Your task to perform on an android device: Open Google Chrome and click the shortcut for Amazon.com Image 0: 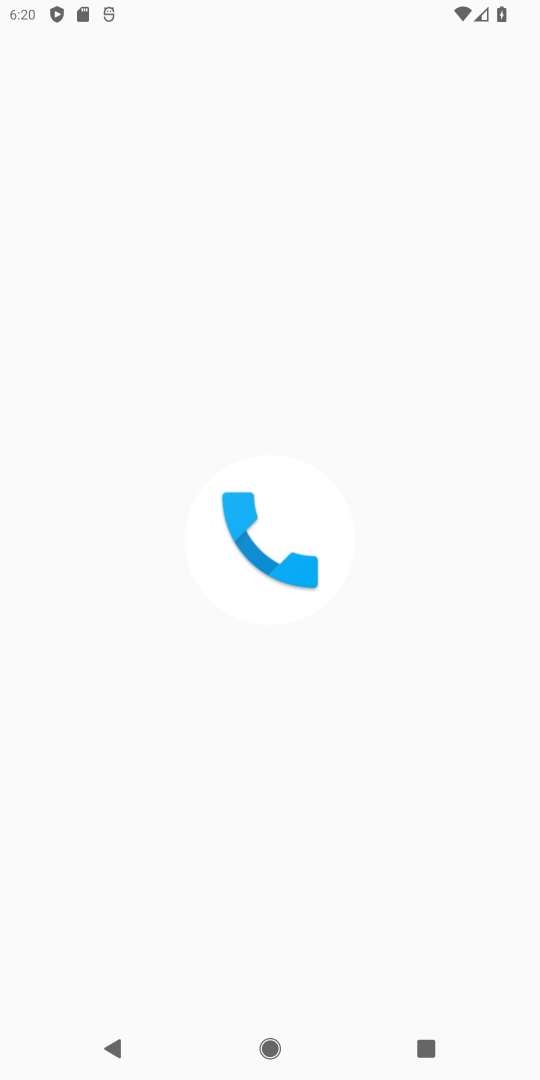
Step 0: press home button
Your task to perform on an android device: Open Google Chrome and click the shortcut for Amazon.com Image 1: 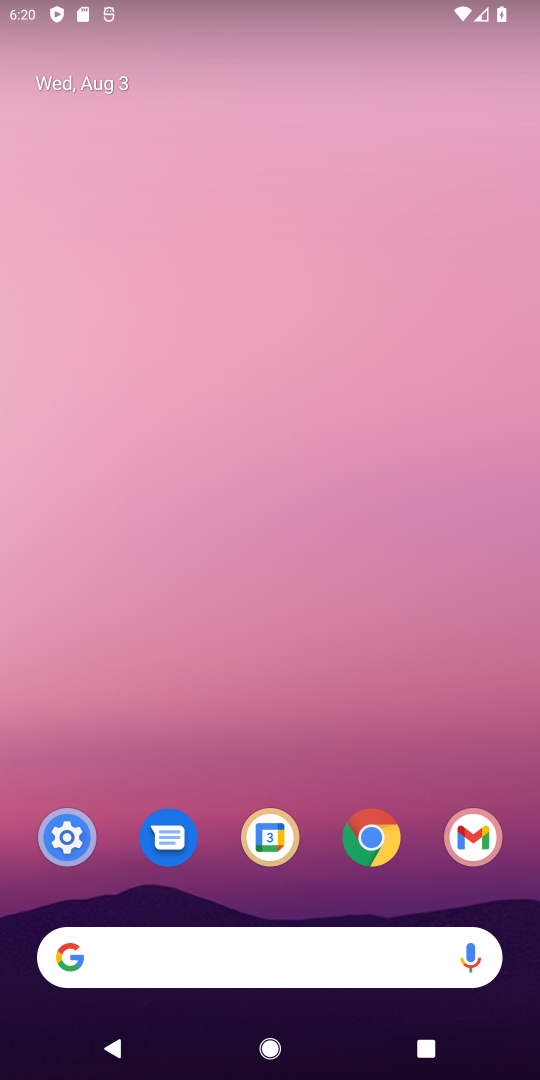
Step 1: click (360, 826)
Your task to perform on an android device: Open Google Chrome and click the shortcut for Amazon.com Image 2: 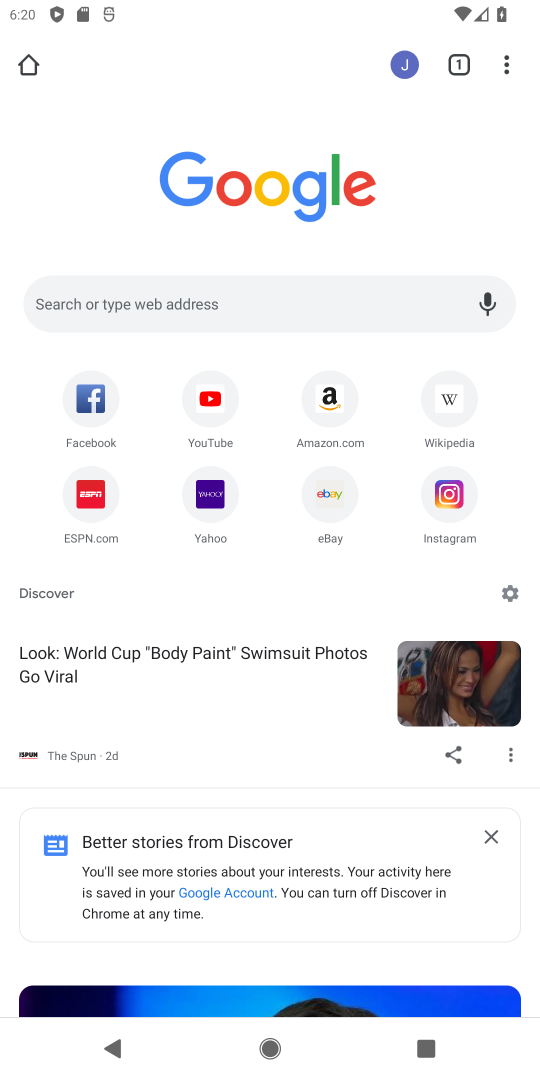
Step 2: click (341, 393)
Your task to perform on an android device: Open Google Chrome and click the shortcut for Amazon.com Image 3: 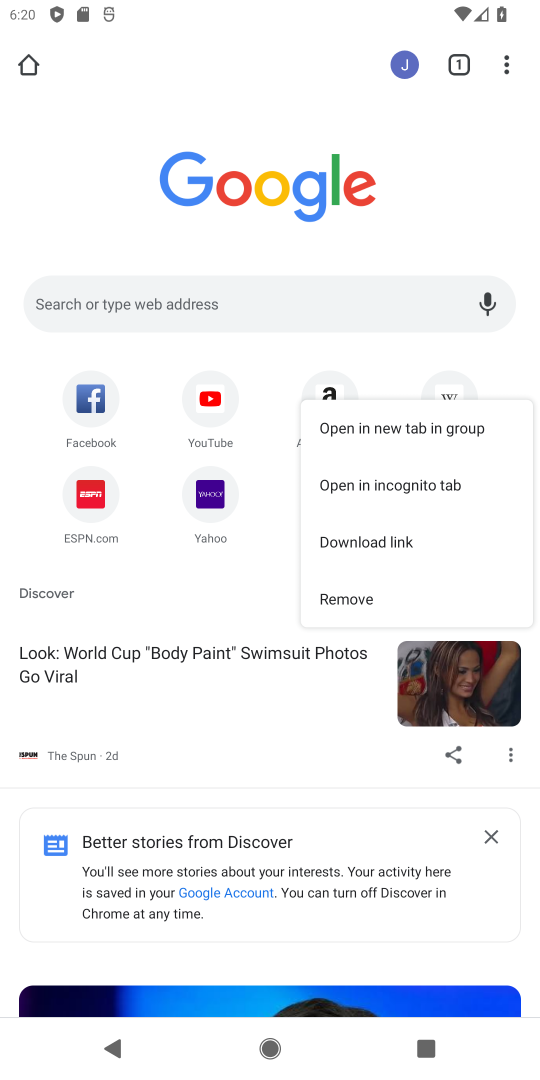
Step 3: click (331, 388)
Your task to perform on an android device: Open Google Chrome and click the shortcut for Amazon.com Image 4: 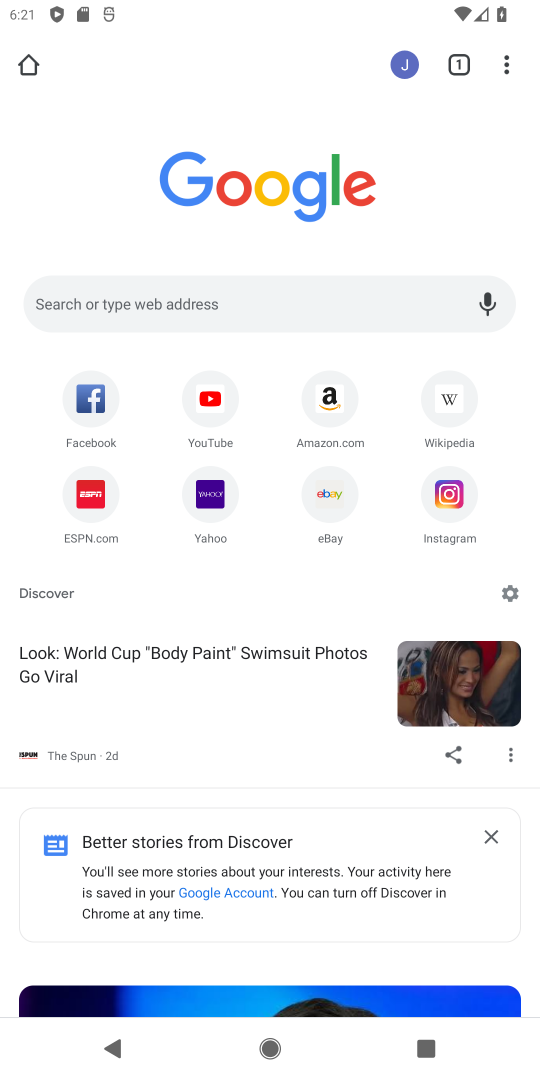
Step 4: click (331, 392)
Your task to perform on an android device: Open Google Chrome and click the shortcut for Amazon.com Image 5: 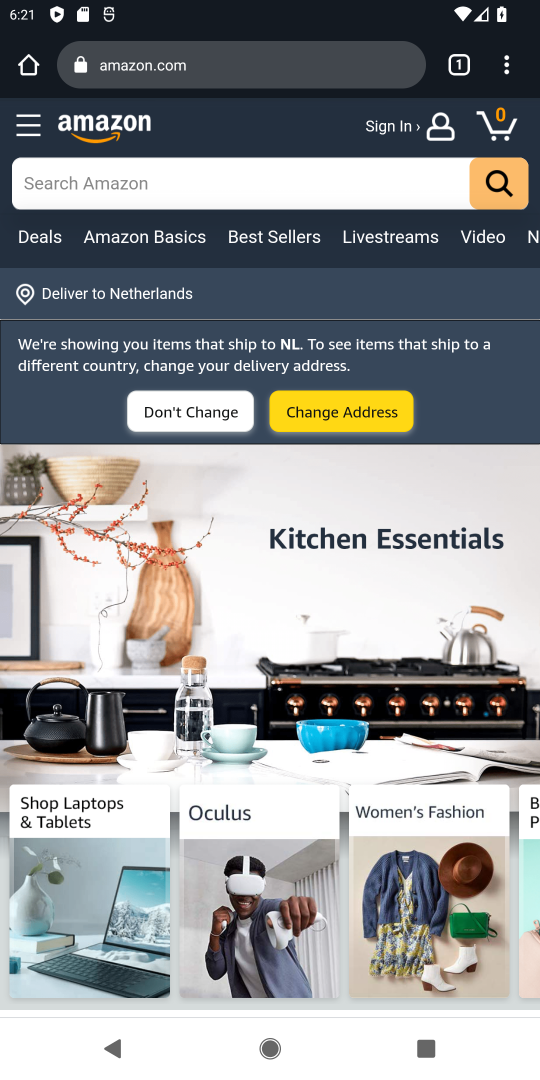
Step 5: task complete